Your task to perform on an android device: What is the recent news? Image 0: 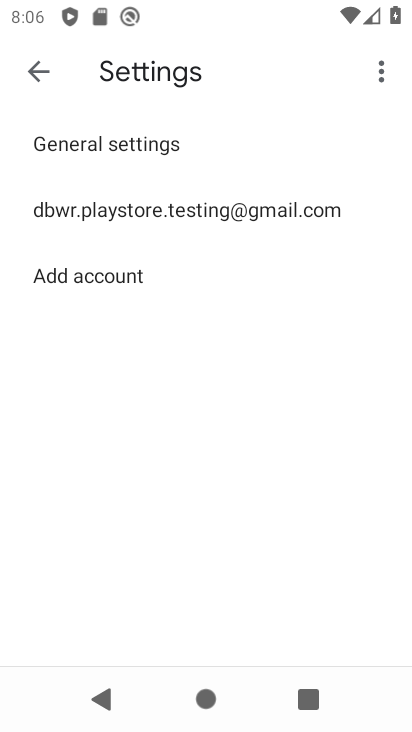
Step 0: press home button
Your task to perform on an android device: What is the recent news? Image 1: 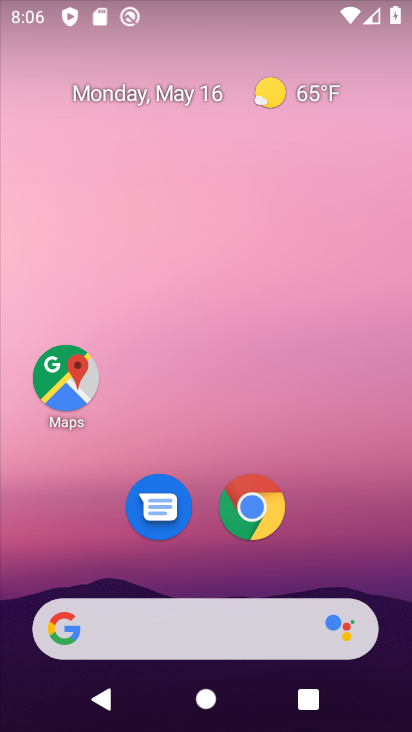
Step 1: drag from (211, 583) to (162, 8)
Your task to perform on an android device: What is the recent news? Image 2: 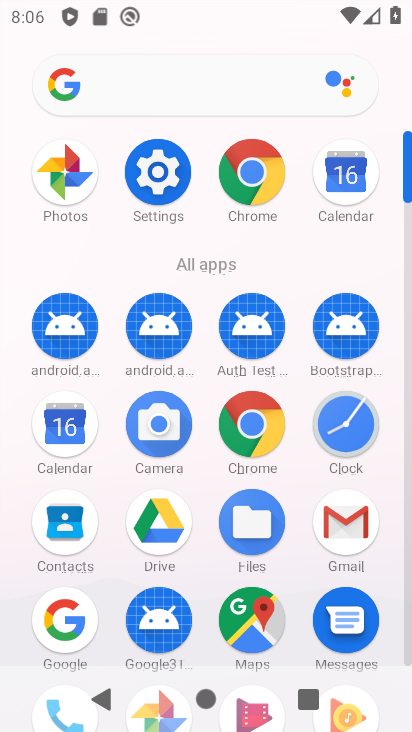
Step 2: drag from (200, 509) to (175, 20)
Your task to perform on an android device: What is the recent news? Image 3: 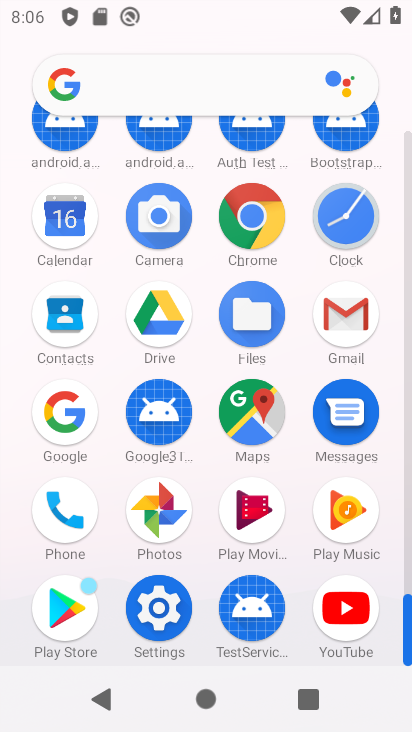
Step 3: click (74, 417)
Your task to perform on an android device: What is the recent news? Image 4: 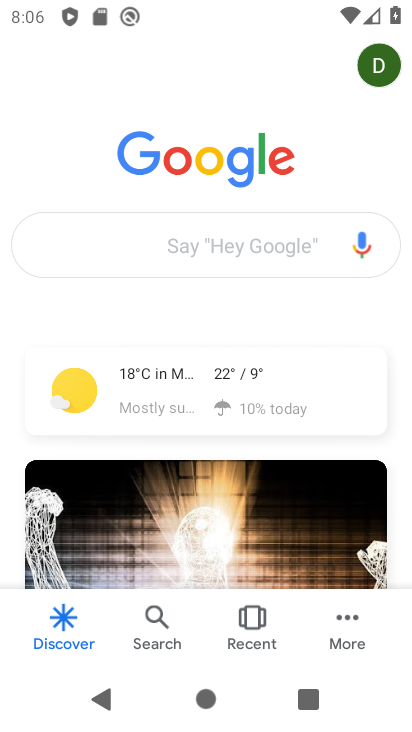
Step 4: drag from (158, 410) to (91, 409)
Your task to perform on an android device: What is the recent news? Image 5: 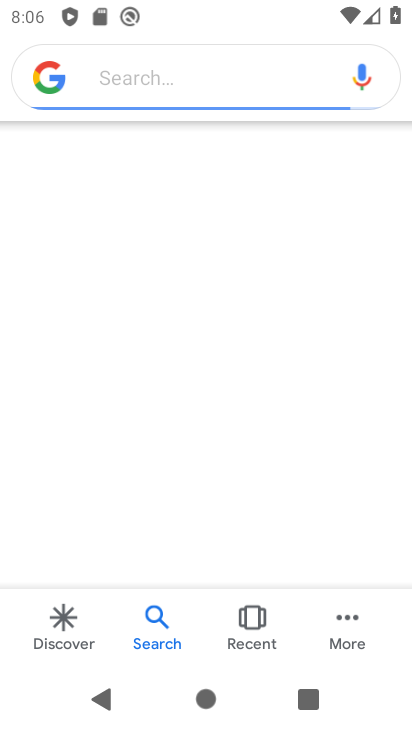
Step 5: click (133, 91)
Your task to perform on an android device: What is the recent news? Image 6: 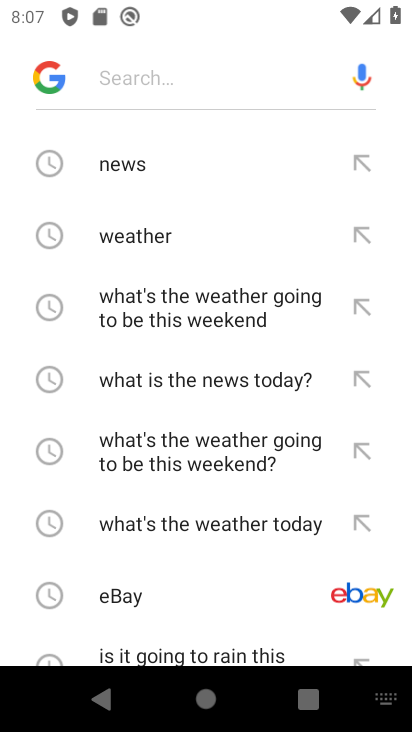
Step 6: click (118, 161)
Your task to perform on an android device: What is the recent news? Image 7: 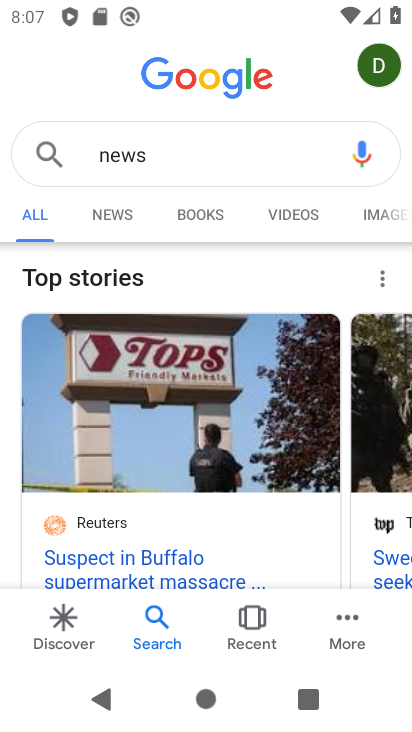
Step 7: task complete